Your task to perform on an android device: open a bookmark in the chrome app Image 0: 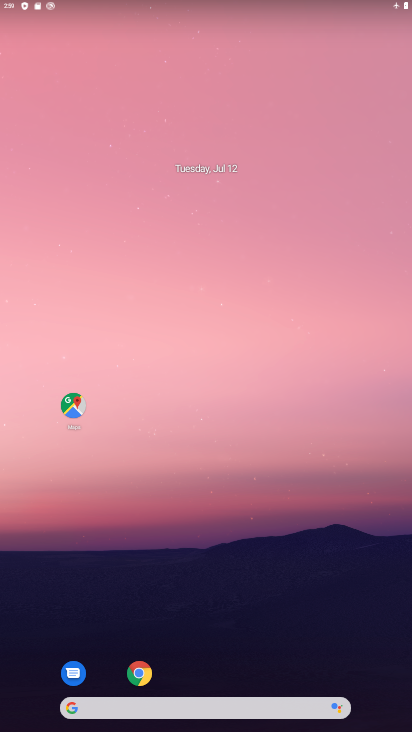
Step 0: click (141, 673)
Your task to perform on an android device: open a bookmark in the chrome app Image 1: 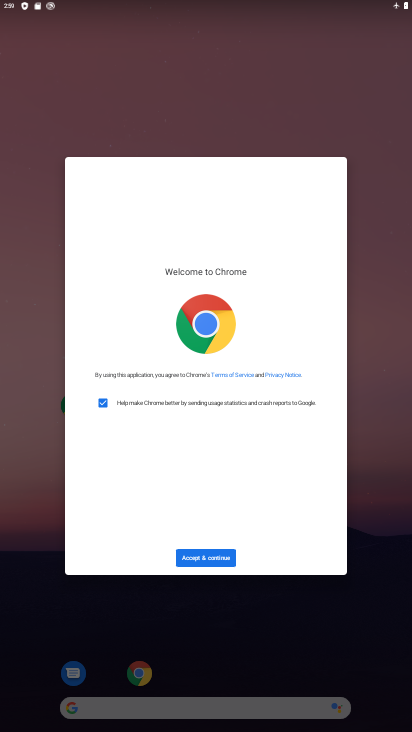
Step 1: click (216, 557)
Your task to perform on an android device: open a bookmark in the chrome app Image 2: 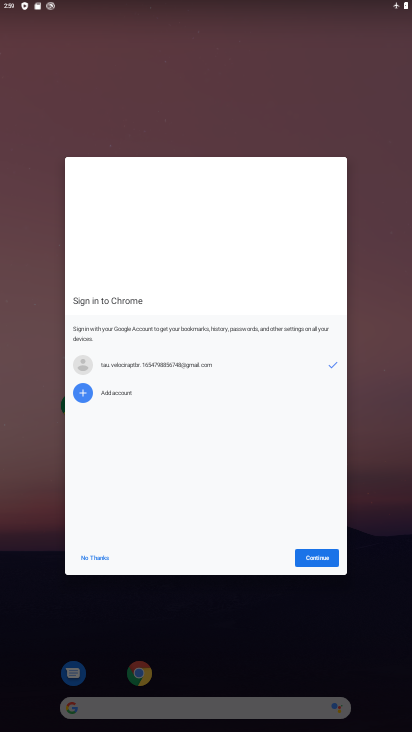
Step 2: click (313, 559)
Your task to perform on an android device: open a bookmark in the chrome app Image 3: 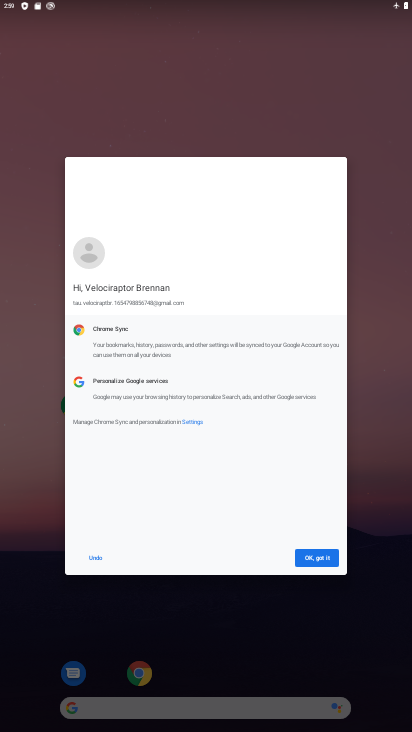
Step 3: click (313, 559)
Your task to perform on an android device: open a bookmark in the chrome app Image 4: 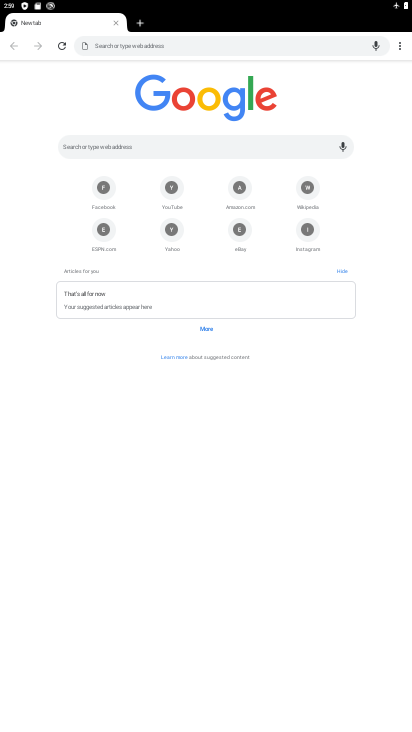
Step 4: click (399, 44)
Your task to perform on an android device: open a bookmark in the chrome app Image 5: 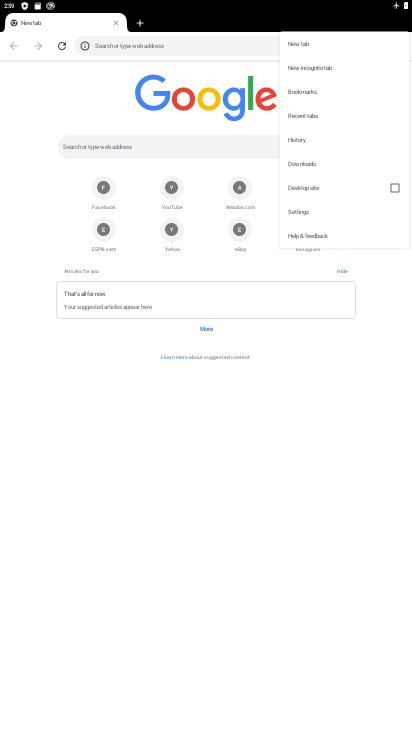
Step 5: click (316, 95)
Your task to perform on an android device: open a bookmark in the chrome app Image 6: 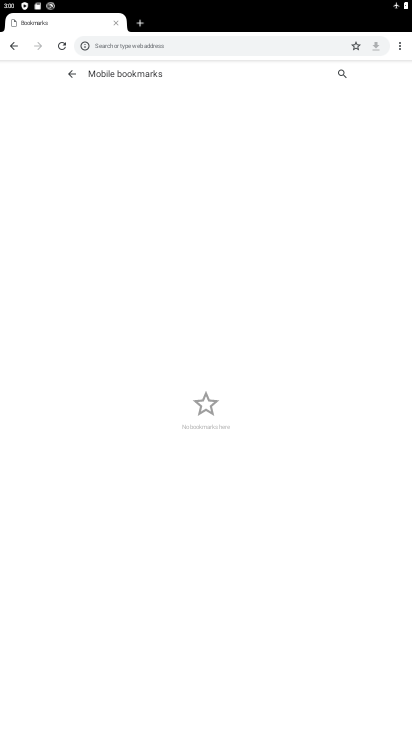
Step 6: task complete